Your task to perform on an android device: Open a new Chrome private window Image 0: 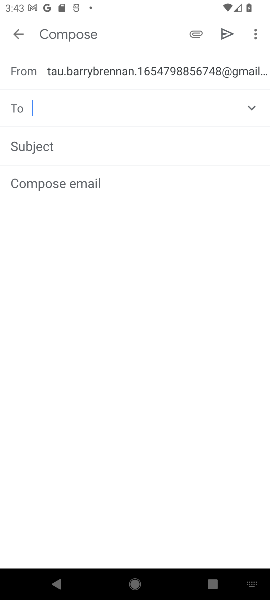
Step 0: press home button
Your task to perform on an android device: Open a new Chrome private window Image 1: 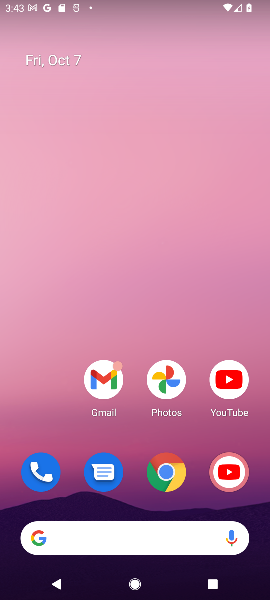
Step 1: click (167, 471)
Your task to perform on an android device: Open a new Chrome private window Image 2: 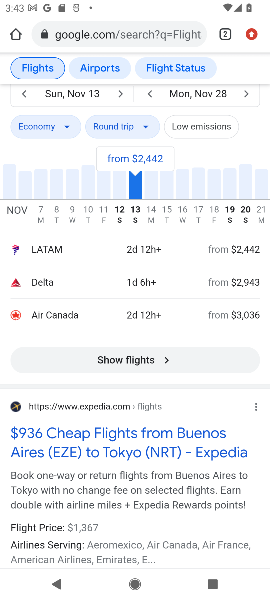
Step 2: click (253, 31)
Your task to perform on an android device: Open a new Chrome private window Image 3: 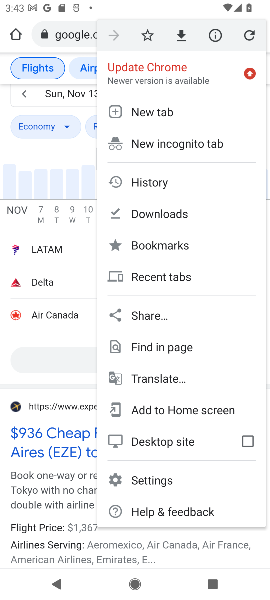
Step 3: click (200, 146)
Your task to perform on an android device: Open a new Chrome private window Image 4: 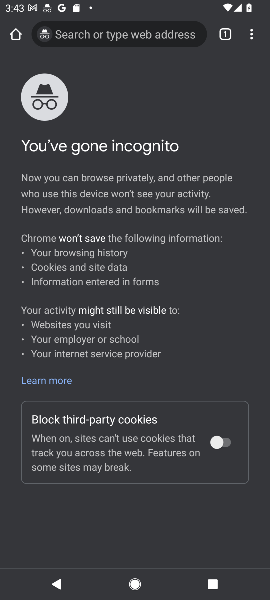
Step 4: task complete